Your task to perform on an android device: make emails show in primary in the gmail app Image 0: 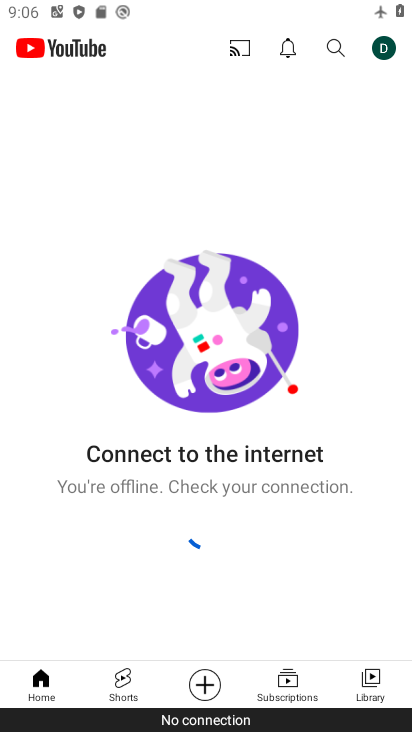
Step 0: press home button
Your task to perform on an android device: make emails show in primary in the gmail app Image 1: 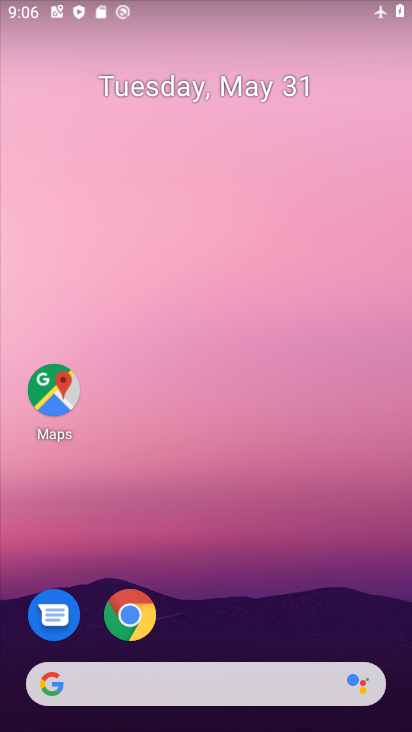
Step 1: drag from (372, 631) to (313, 41)
Your task to perform on an android device: make emails show in primary in the gmail app Image 2: 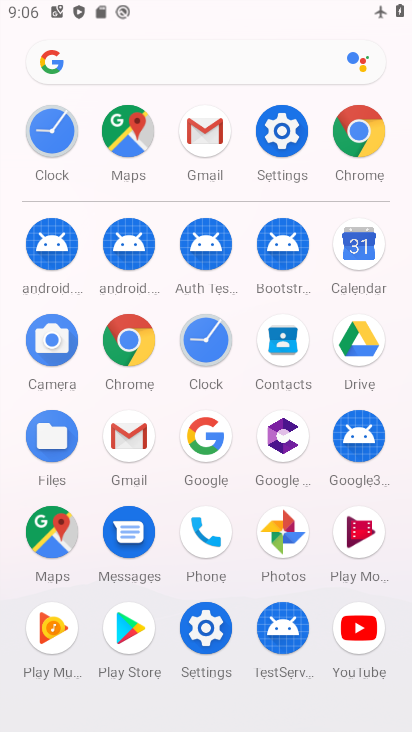
Step 2: click (127, 435)
Your task to perform on an android device: make emails show in primary in the gmail app Image 3: 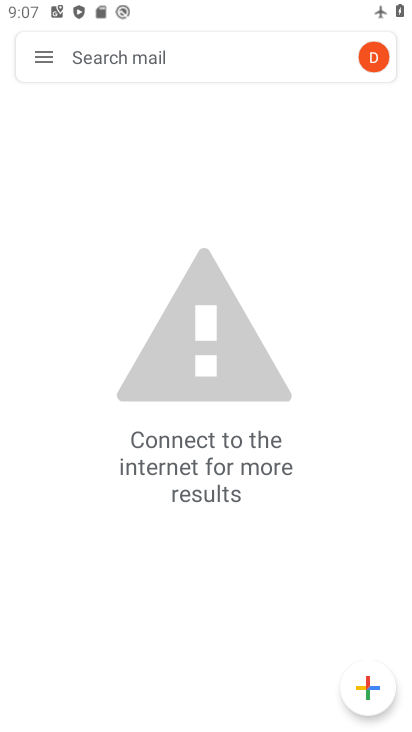
Step 3: click (45, 64)
Your task to perform on an android device: make emails show in primary in the gmail app Image 4: 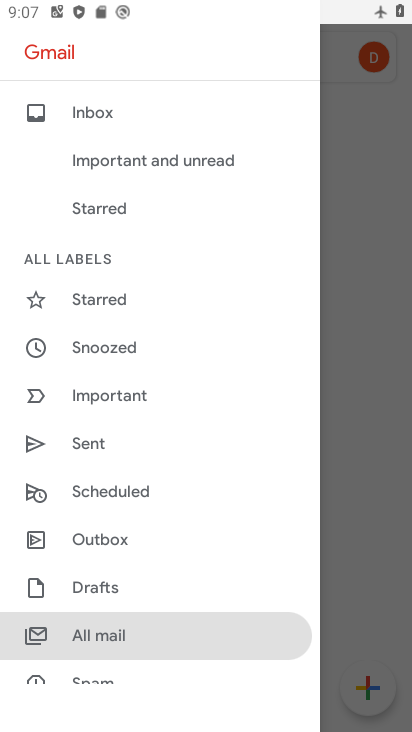
Step 4: drag from (215, 574) to (199, 351)
Your task to perform on an android device: make emails show in primary in the gmail app Image 5: 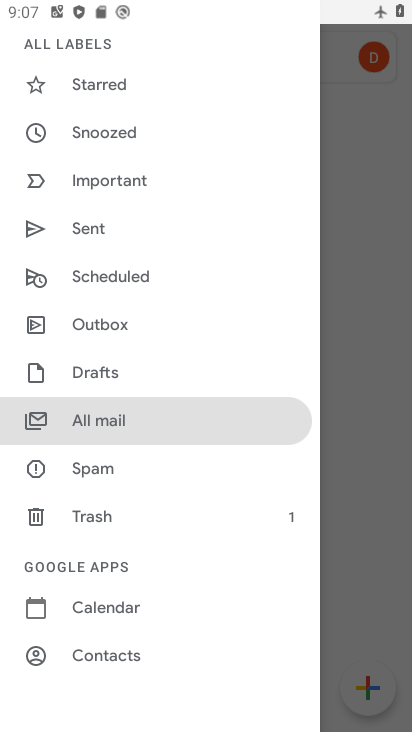
Step 5: drag from (164, 611) to (185, 178)
Your task to perform on an android device: make emails show in primary in the gmail app Image 6: 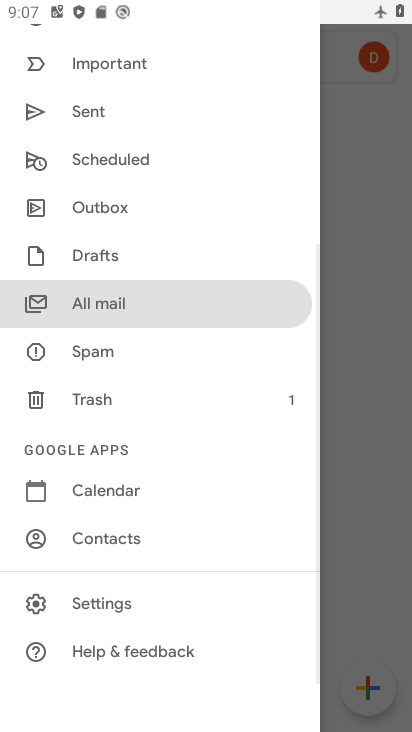
Step 6: click (95, 617)
Your task to perform on an android device: make emails show in primary in the gmail app Image 7: 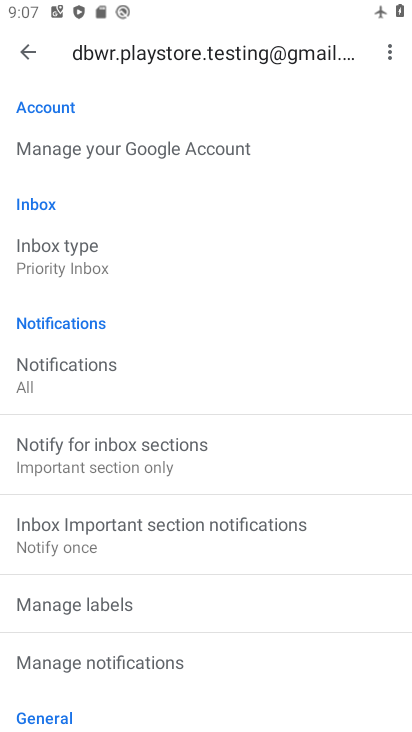
Step 7: drag from (295, 629) to (278, 427)
Your task to perform on an android device: make emails show in primary in the gmail app Image 8: 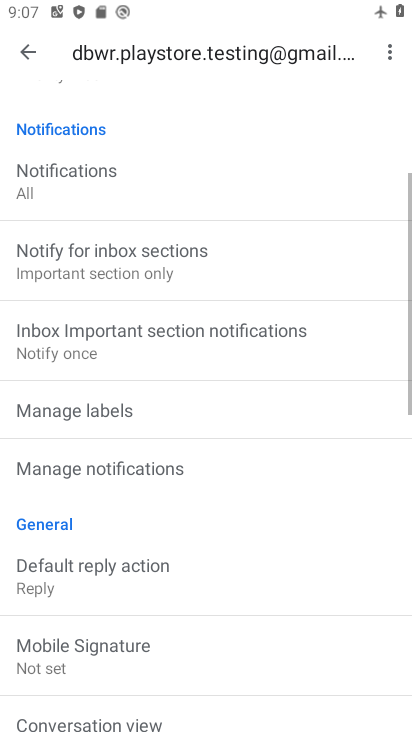
Step 8: drag from (278, 430) to (271, 628)
Your task to perform on an android device: make emails show in primary in the gmail app Image 9: 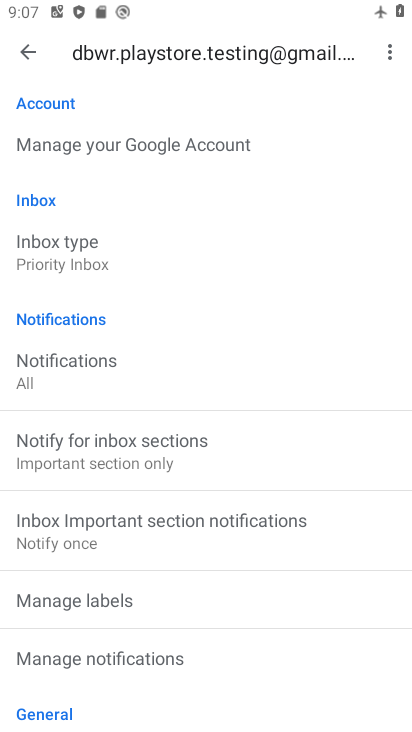
Step 9: click (47, 243)
Your task to perform on an android device: make emails show in primary in the gmail app Image 10: 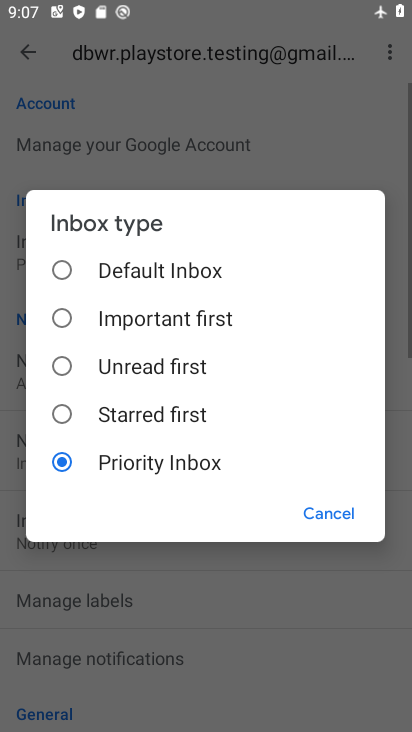
Step 10: click (62, 268)
Your task to perform on an android device: make emails show in primary in the gmail app Image 11: 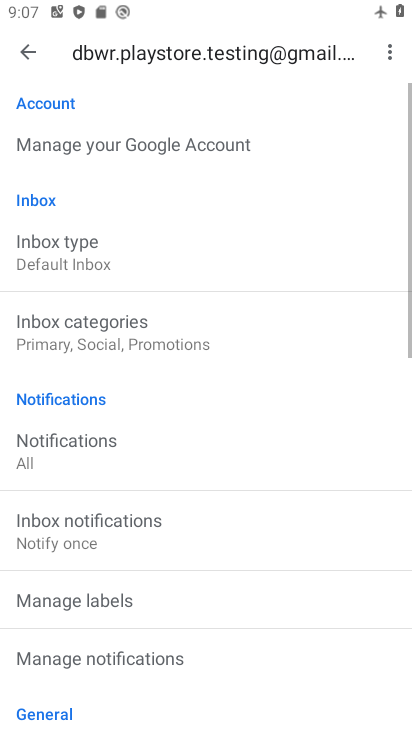
Step 11: click (70, 337)
Your task to perform on an android device: make emails show in primary in the gmail app Image 12: 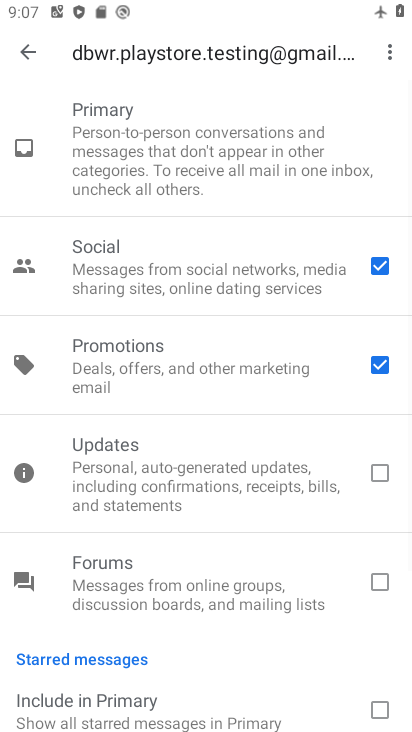
Step 12: click (383, 360)
Your task to perform on an android device: make emails show in primary in the gmail app Image 13: 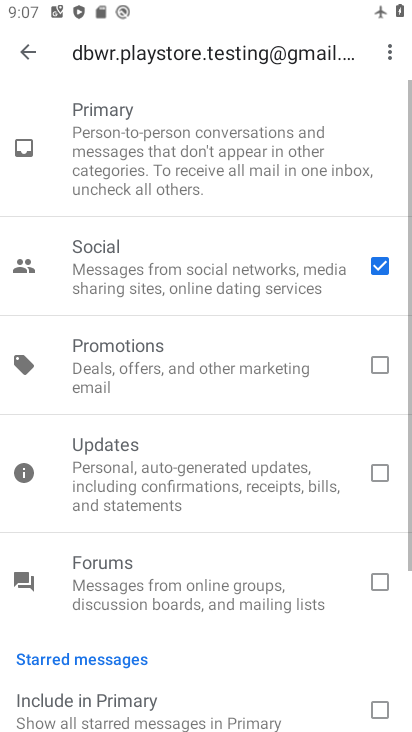
Step 13: click (376, 263)
Your task to perform on an android device: make emails show in primary in the gmail app Image 14: 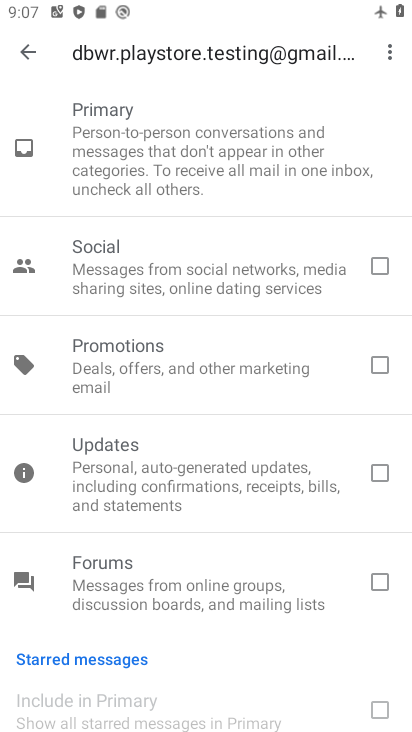
Step 14: task complete